Your task to perform on an android device: Go to location settings Image 0: 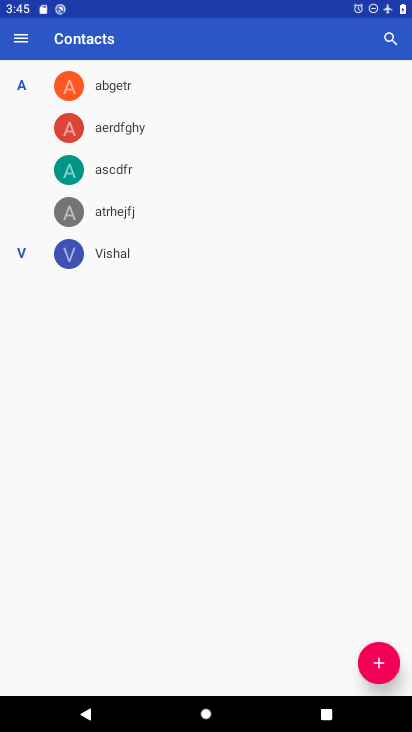
Step 0: press home button
Your task to perform on an android device: Go to location settings Image 1: 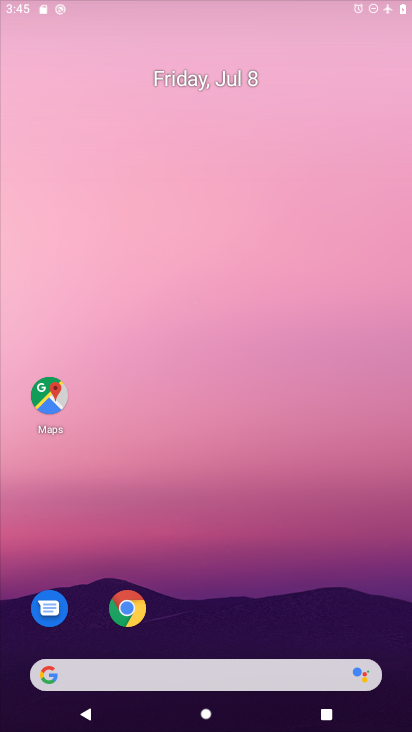
Step 1: drag from (221, 620) to (241, 4)
Your task to perform on an android device: Go to location settings Image 2: 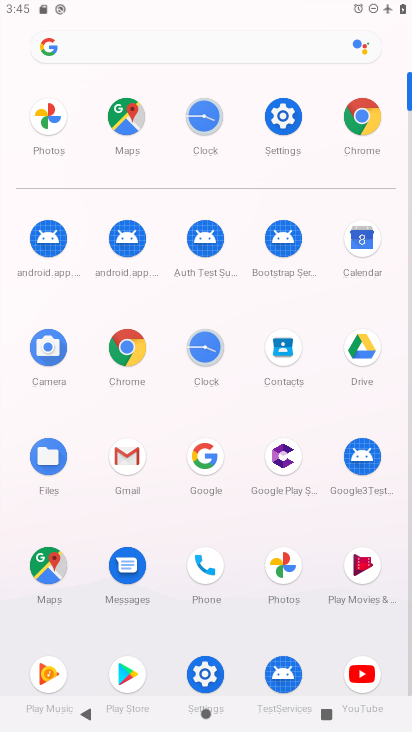
Step 2: click (273, 113)
Your task to perform on an android device: Go to location settings Image 3: 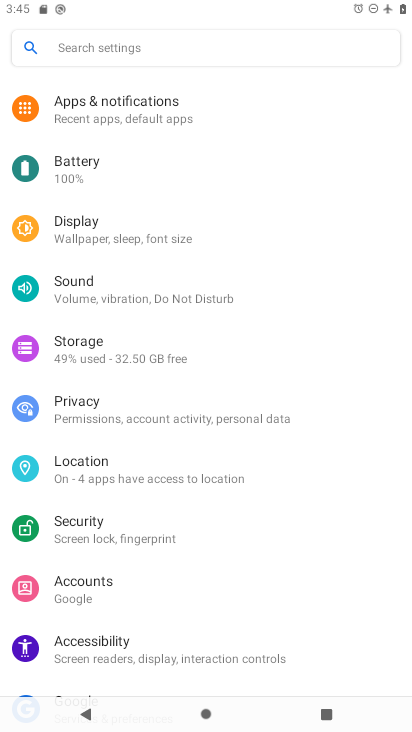
Step 3: click (124, 476)
Your task to perform on an android device: Go to location settings Image 4: 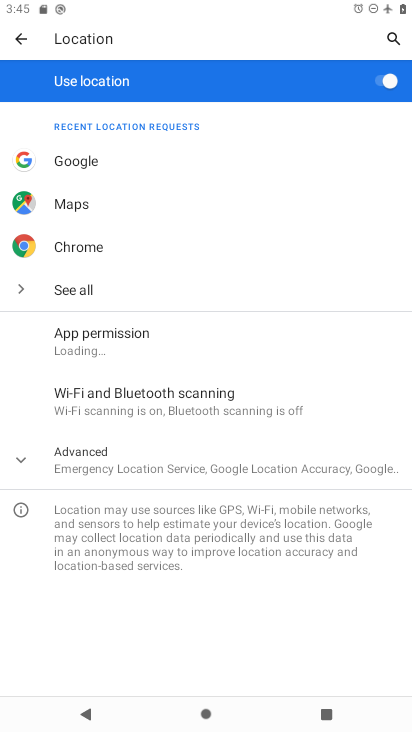
Step 4: task complete